Your task to perform on an android device: Show me productivity apps on the Play Store Image 0: 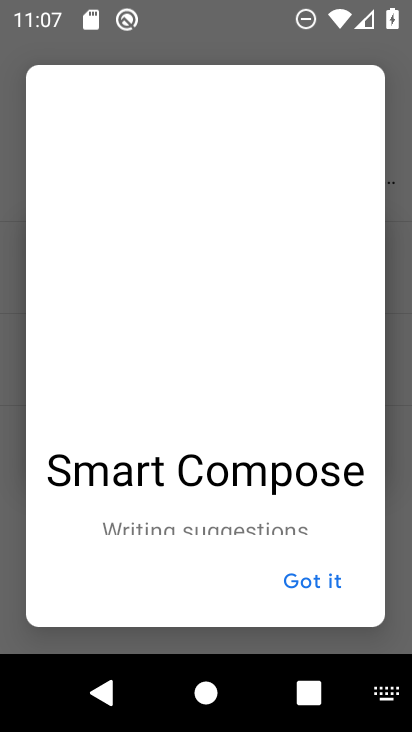
Step 0: press home button
Your task to perform on an android device: Show me productivity apps on the Play Store Image 1: 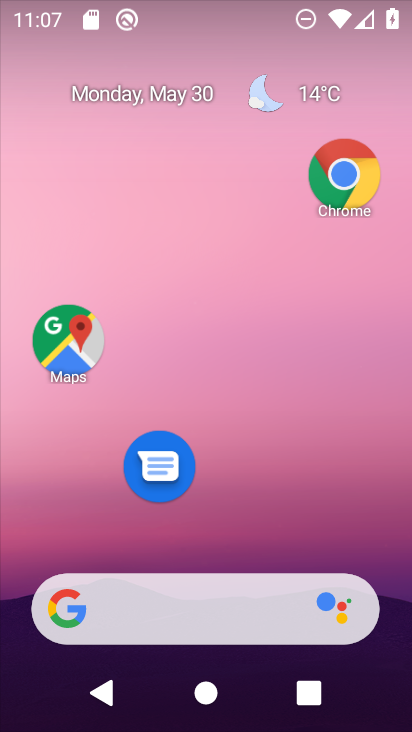
Step 1: drag from (255, 525) to (322, 209)
Your task to perform on an android device: Show me productivity apps on the Play Store Image 2: 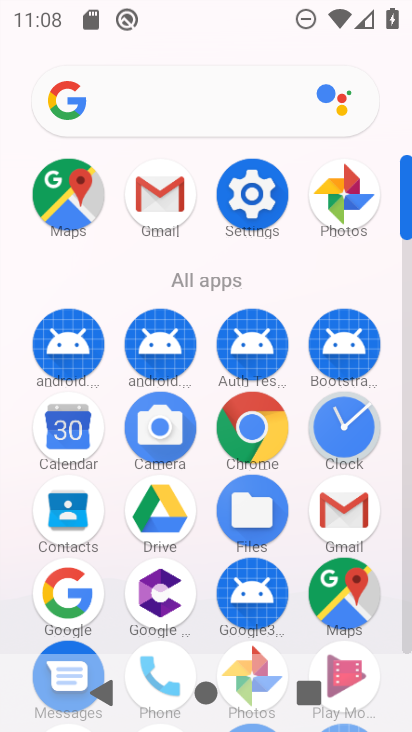
Step 2: drag from (289, 630) to (317, 240)
Your task to perform on an android device: Show me productivity apps on the Play Store Image 3: 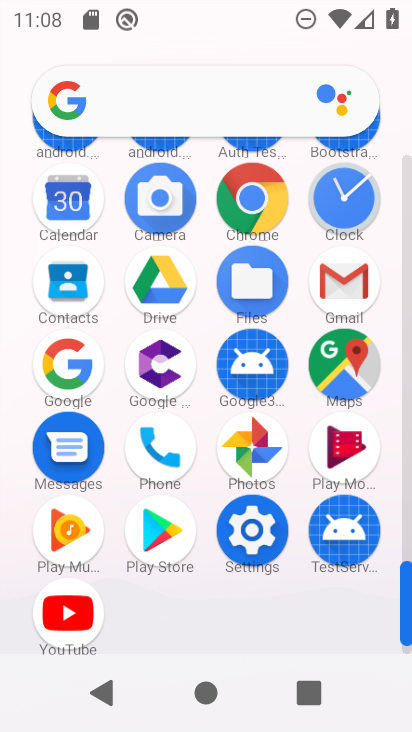
Step 3: click (170, 524)
Your task to perform on an android device: Show me productivity apps on the Play Store Image 4: 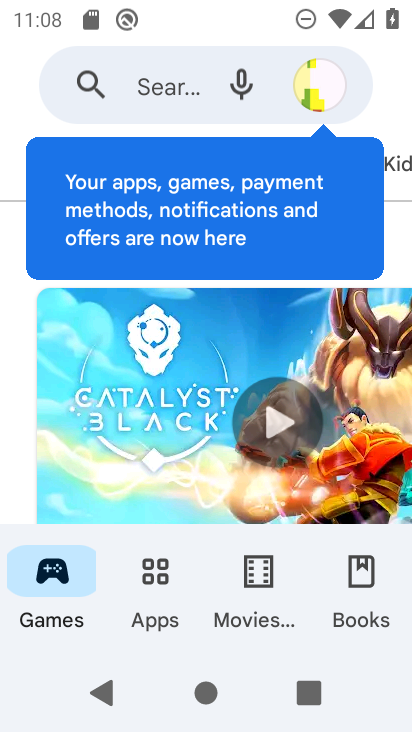
Step 4: click (204, 82)
Your task to perform on an android device: Show me productivity apps on the Play Store Image 5: 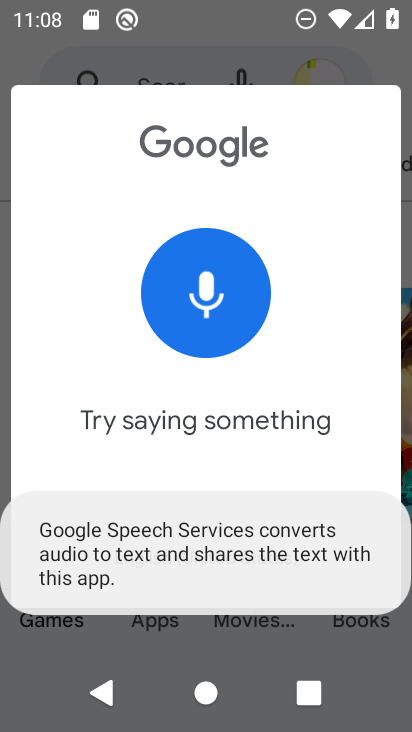
Step 5: press back button
Your task to perform on an android device: Show me productivity apps on the Play Store Image 6: 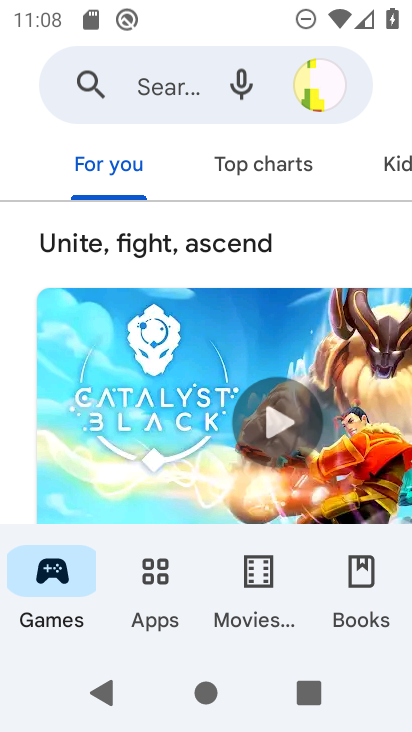
Step 6: click (166, 73)
Your task to perform on an android device: Show me productivity apps on the Play Store Image 7: 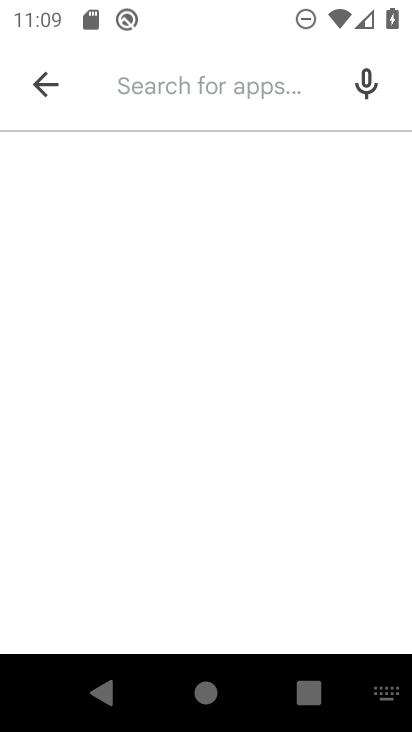
Step 7: type "productivity app"
Your task to perform on an android device: Show me productivity apps on the Play Store Image 8: 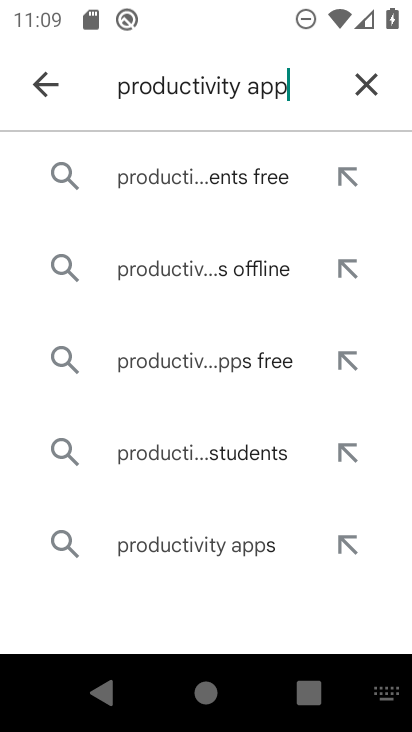
Step 8: click (219, 549)
Your task to perform on an android device: Show me productivity apps on the Play Store Image 9: 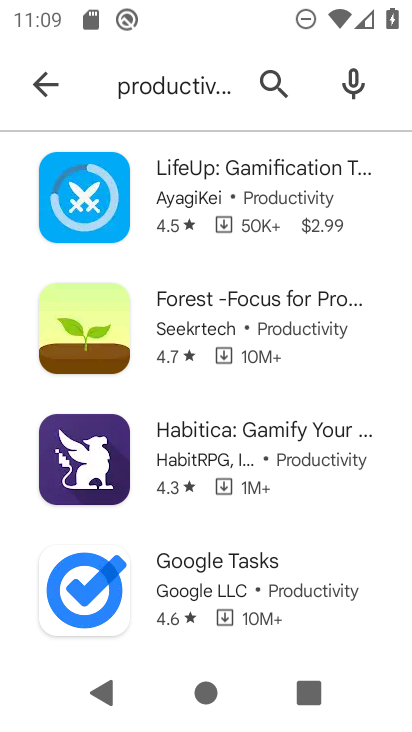
Step 9: task complete